Your task to perform on an android device: find snoozed emails in the gmail app Image 0: 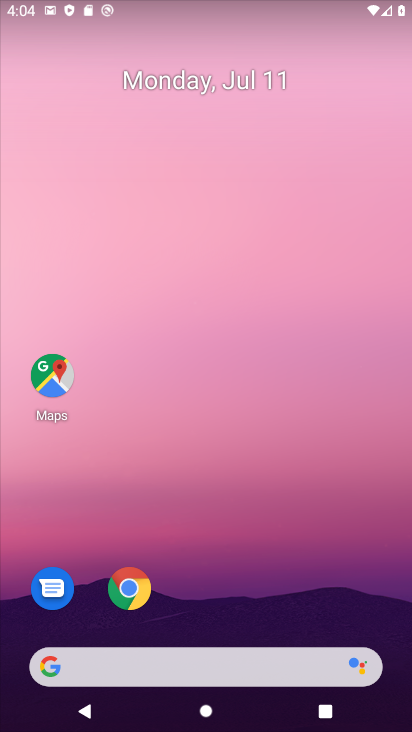
Step 0: drag from (293, 384) to (293, 156)
Your task to perform on an android device: find snoozed emails in the gmail app Image 1: 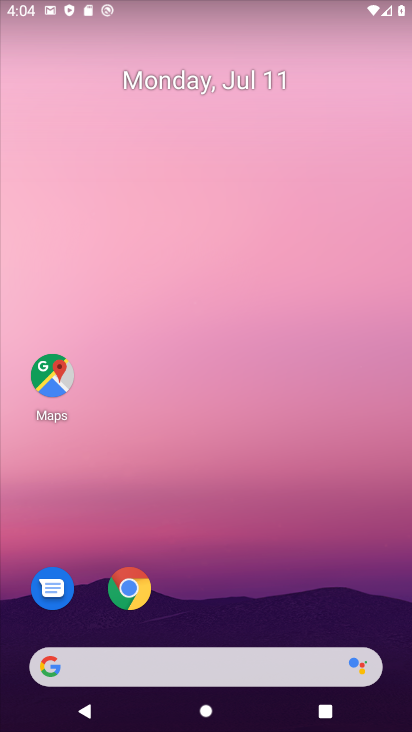
Step 1: drag from (259, 701) to (240, 273)
Your task to perform on an android device: find snoozed emails in the gmail app Image 2: 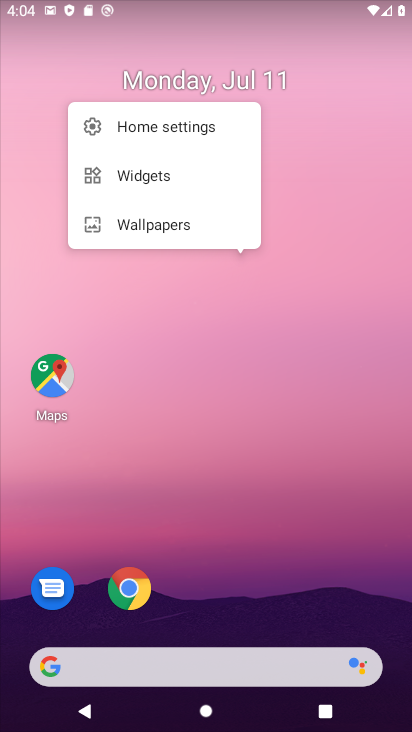
Step 2: drag from (297, 705) to (305, 306)
Your task to perform on an android device: find snoozed emails in the gmail app Image 3: 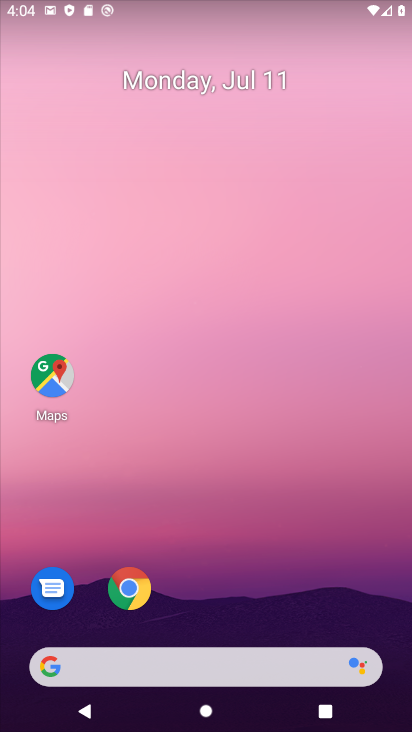
Step 3: drag from (256, 688) to (177, 19)
Your task to perform on an android device: find snoozed emails in the gmail app Image 4: 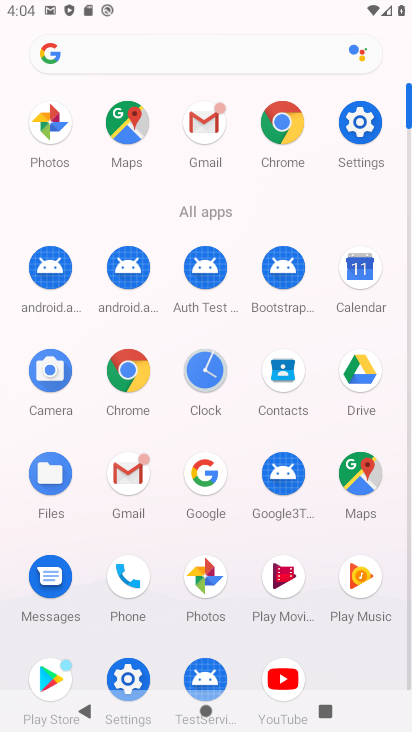
Step 4: click (124, 465)
Your task to perform on an android device: find snoozed emails in the gmail app Image 5: 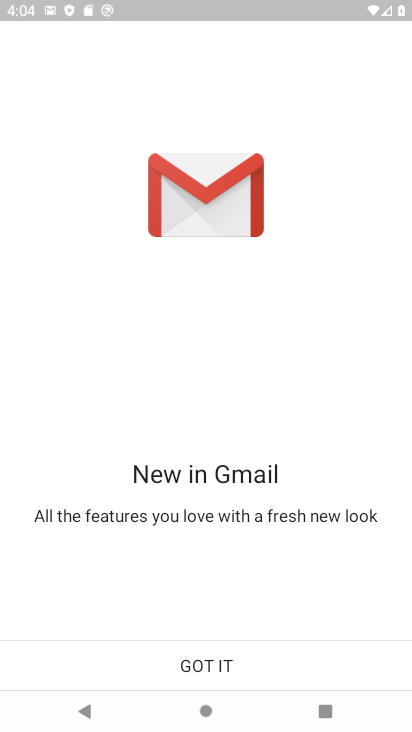
Step 5: click (197, 661)
Your task to perform on an android device: find snoozed emails in the gmail app Image 6: 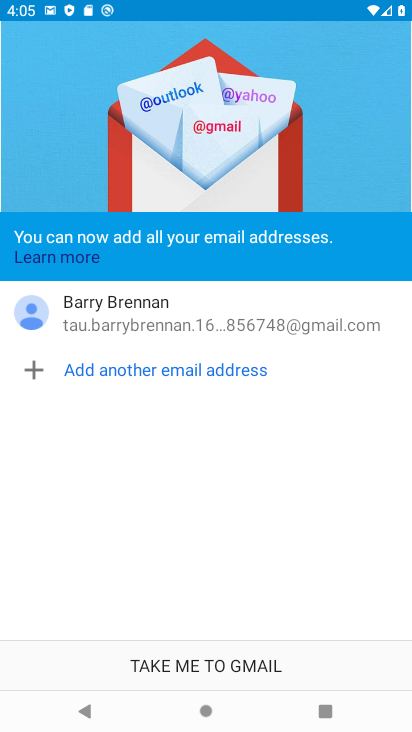
Step 6: click (197, 656)
Your task to perform on an android device: find snoozed emails in the gmail app Image 7: 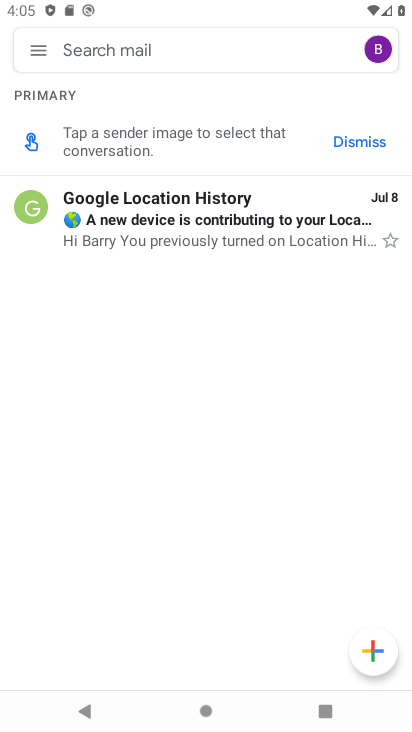
Step 7: click (38, 48)
Your task to perform on an android device: find snoozed emails in the gmail app Image 8: 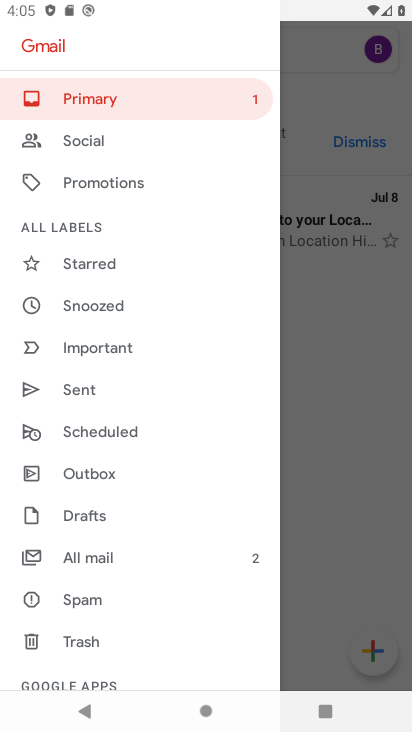
Step 8: click (110, 308)
Your task to perform on an android device: find snoozed emails in the gmail app Image 9: 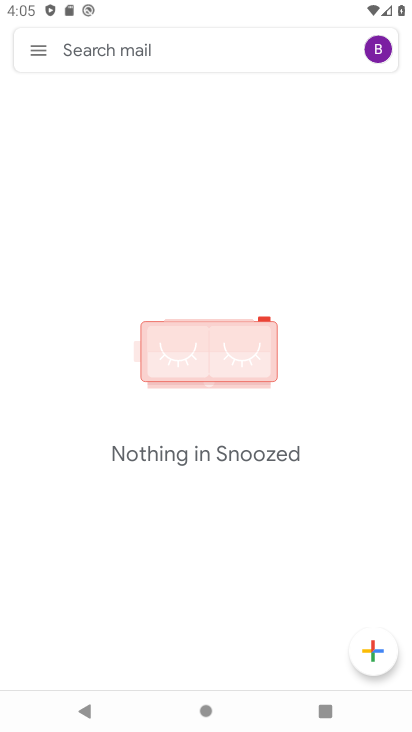
Step 9: task complete